Your task to perform on an android device: Open Android settings Image 0: 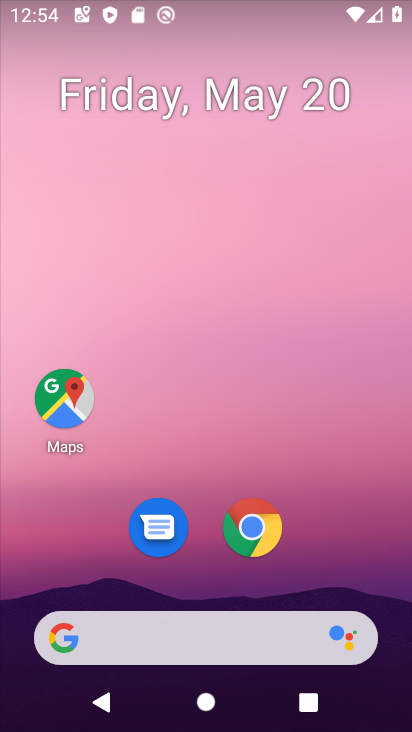
Step 0: drag from (315, 554) to (328, 21)
Your task to perform on an android device: Open Android settings Image 1: 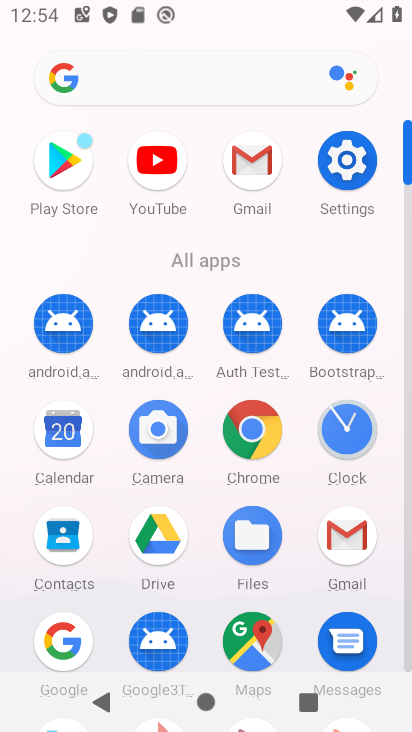
Step 1: click (340, 158)
Your task to perform on an android device: Open Android settings Image 2: 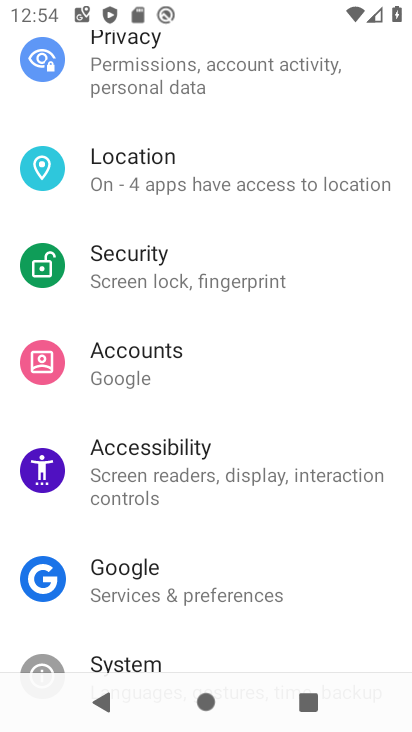
Step 2: drag from (259, 521) to (282, 125)
Your task to perform on an android device: Open Android settings Image 3: 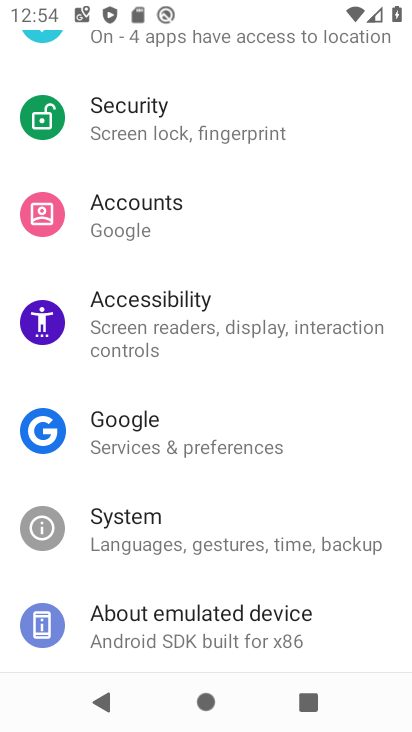
Step 3: click (218, 621)
Your task to perform on an android device: Open Android settings Image 4: 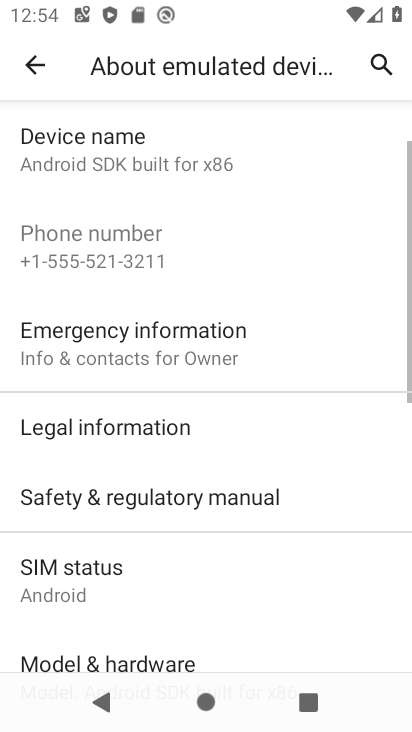
Step 4: task complete